Your task to perform on an android device: Go to wifi settings Image 0: 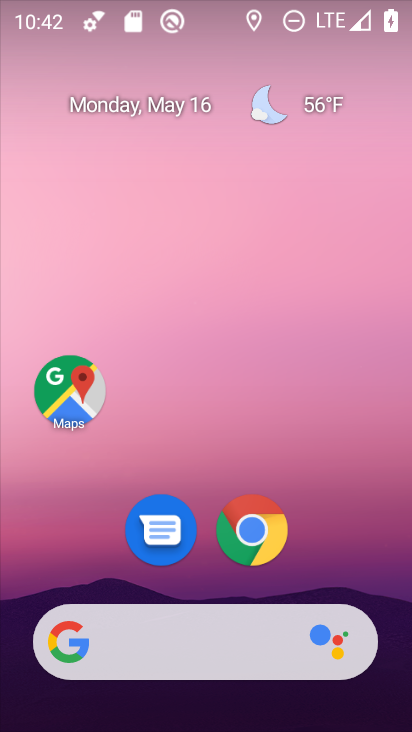
Step 0: drag from (198, 617) to (185, 403)
Your task to perform on an android device: Go to wifi settings Image 1: 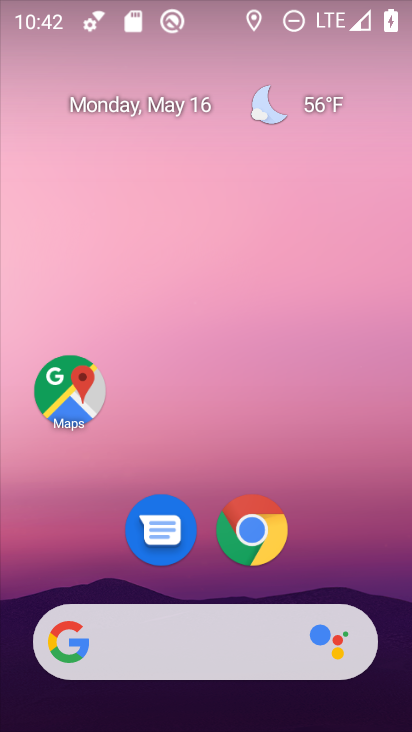
Step 1: drag from (182, 603) to (142, 66)
Your task to perform on an android device: Go to wifi settings Image 2: 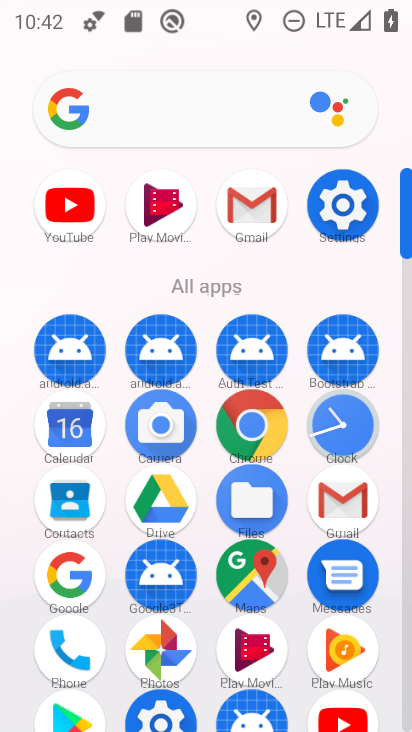
Step 2: click (346, 196)
Your task to perform on an android device: Go to wifi settings Image 3: 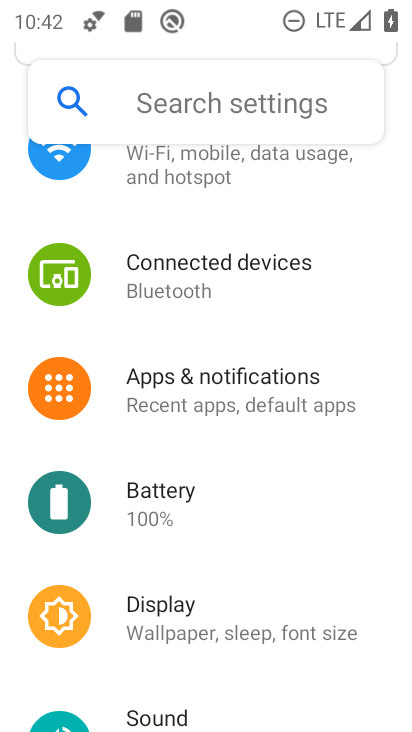
Step 3: click (162, 182)
Your task to perform on an android device: Go to wifi settings Image 4: 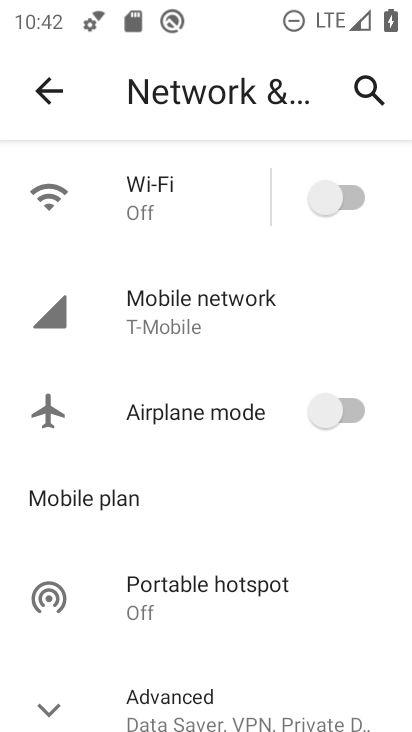
Step 4: click (146, 201)
Your task to perform on an android device: Go to wifi settings Image 5: 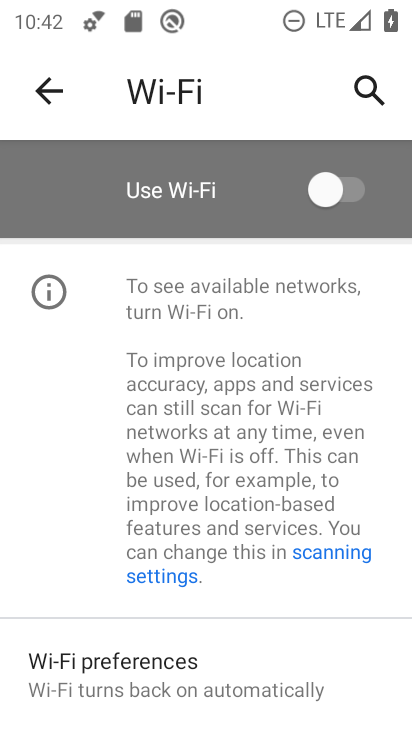
Step 5: task complete